Your task to perform on an android device: turn off priority inbox in the gmail app Image 0: 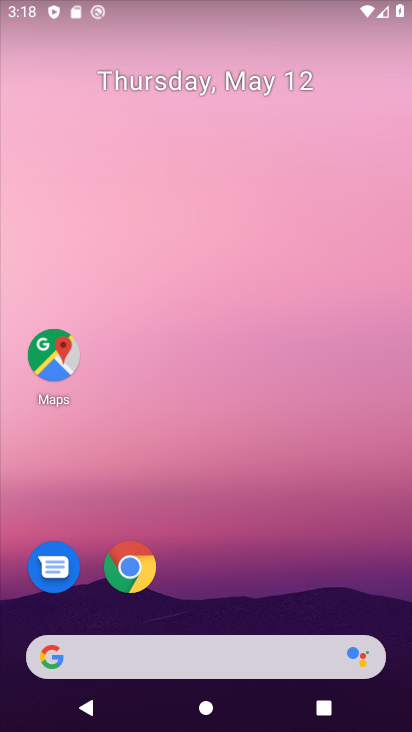
Step 0: drag from (209, 613) to (283, 102)
Your task to perform on an android device: turn off priority inbox in the gmail app Image 1: 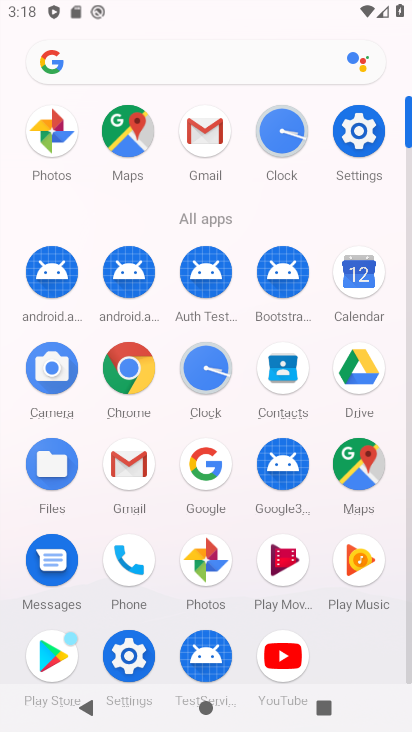
Step 1: drag from (190, 588) to (219, 413)
Your task to perform on an android device: turn off priority inbox in the gmail app Image 2: 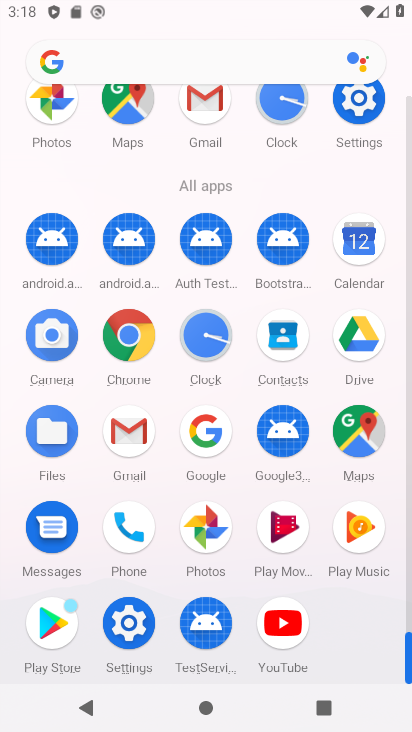
Step 2: click (116, 437)
Your task to perform on an android device: turn off priority inbox in the gmail app Image 3: 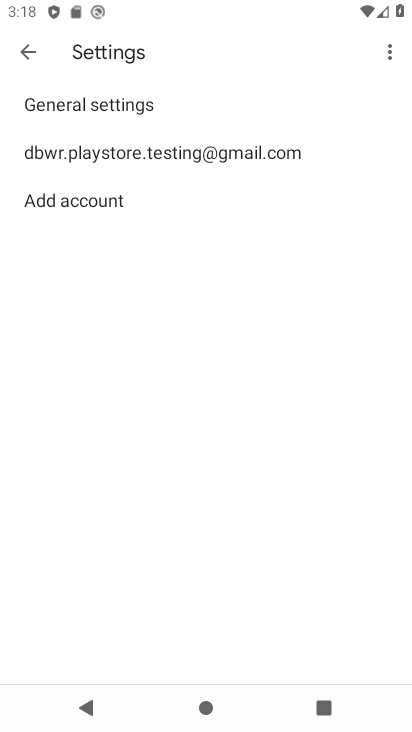
Step 3: click (145, 162)
Your task to perform on an android device: turn off priority inbox in the gmail app Image 4: 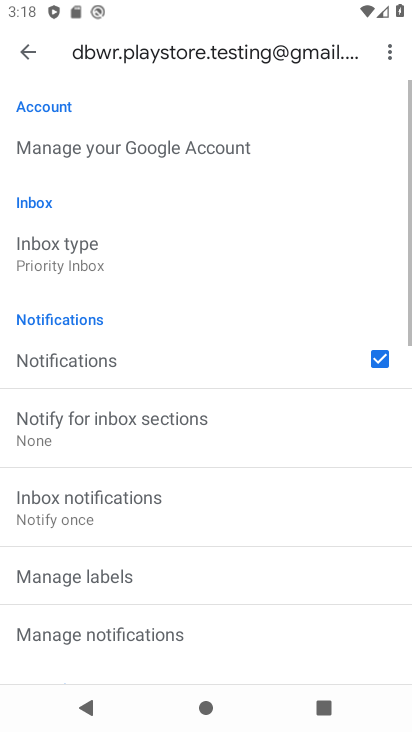
Step 4: click (133, 260)
Your task to perform on an android device: turn off priority inbox in the gmail app Image 5: 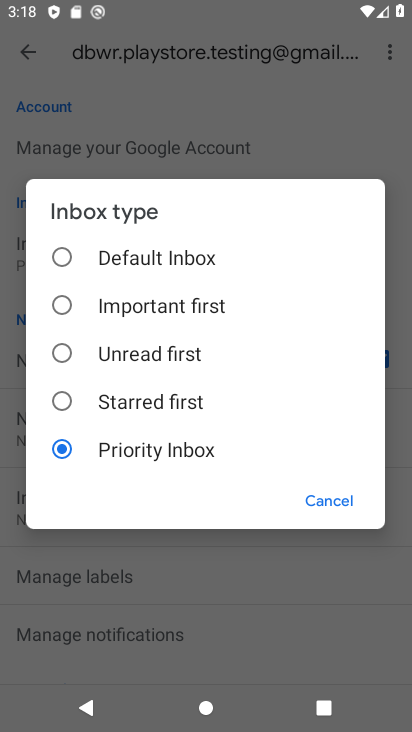
Step 5: click (160, 262)
Your task to perform on an android device: turn off priority inbox in the gmail app Image 6: 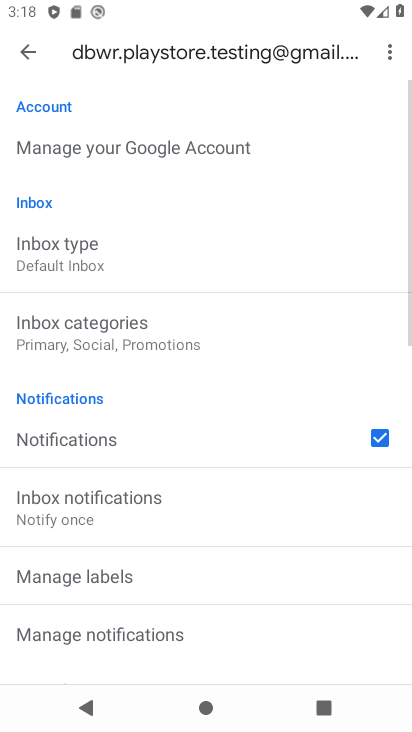
Step 6: task complete